Your task to perform on an android device: What's the weather going to be tomorrow? Image 0: 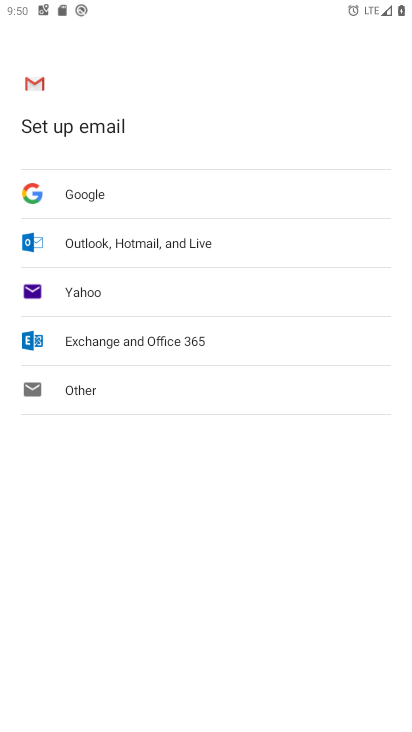
Step 0: press home button
Your task to perform on an android device: What's the weather going to be tomorrow? Image 1: 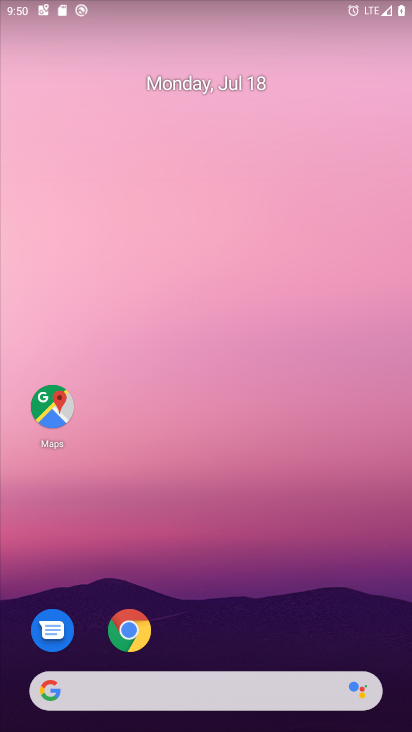
Step 1: drag from (215, 628) to (220, 174)
Your task to perform on an android device: What's the weather going to be tomorrow? Image 2: 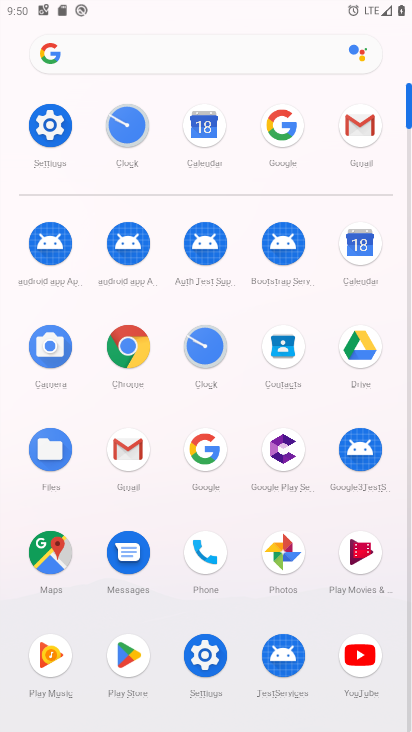
Step 2: click (203, 441)
Your task to perform on an android device: What's the weather going to be tomorrow? Image 3: 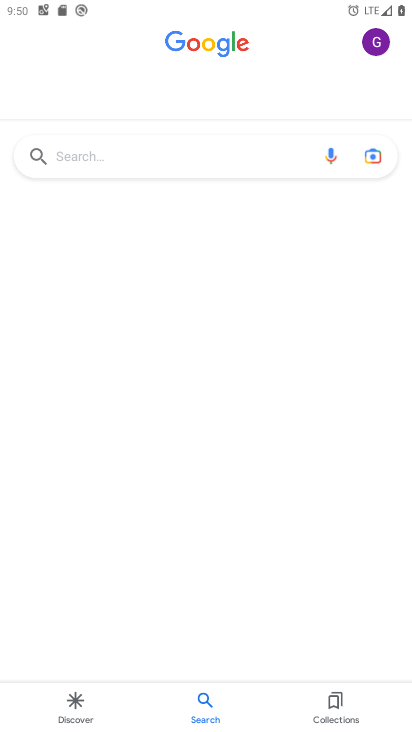
Step 3: click (104, 147)
Your task to perform on an android device: What's the weather going to be tomorrow? Image 4: 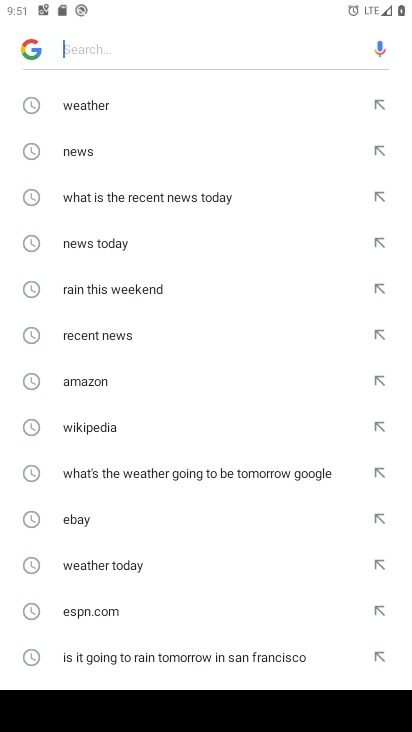
Step 4: click (121, 105)
Your task to perform on an android device: What's the weather going to be tomorrow? Image 5: 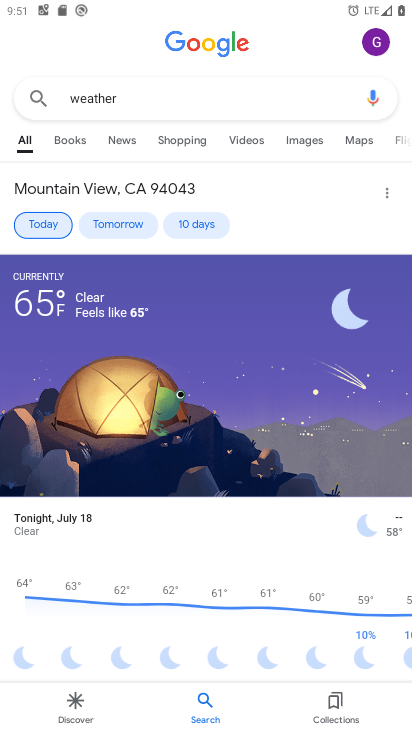
Step 5: click (130, 230)
Your task to perform on an android device: What's the weather going to be tomorrow? Image 6: 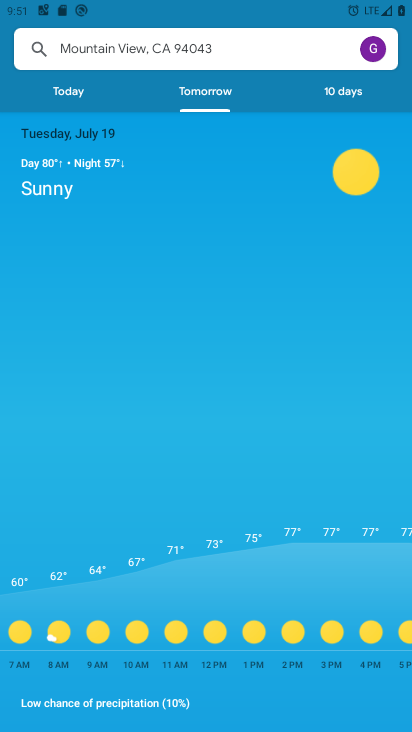
Step 6: task complete